Your task to perform on an android device: When is my next meeting? Image 0: 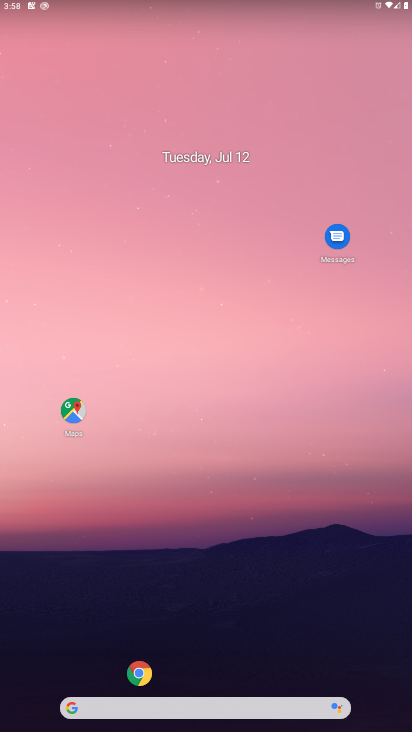
Step 0: drag from (90, 588) to (302, 48)
Your task to perform on an android device: When is my next meeting? Image 1: 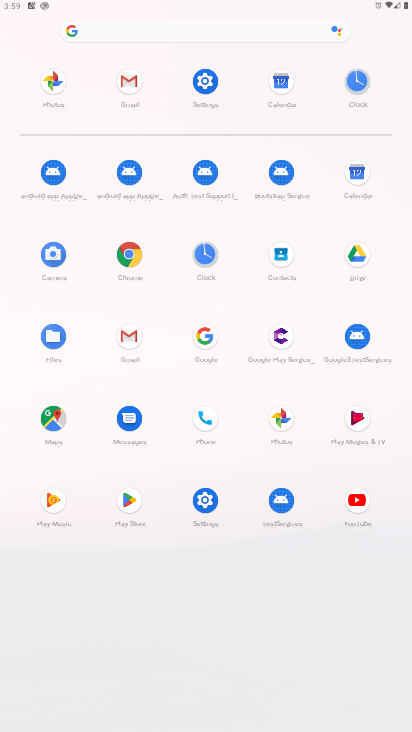
Step 1: click (355, 174)
Your task to perform on an android device: When is my next meeting? Image 2: 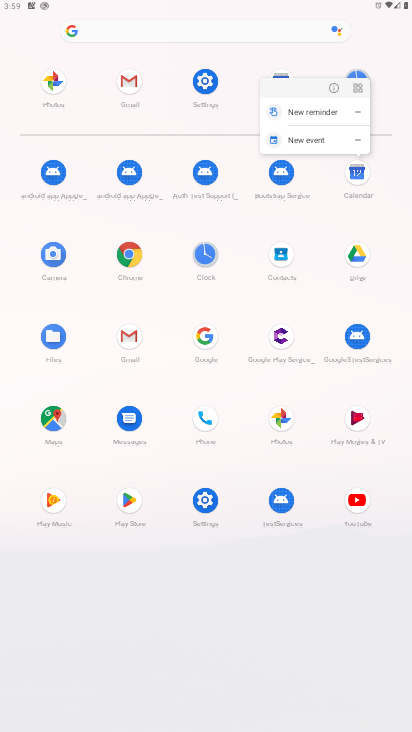
Step 2: click (355, 174)
Your task to perform on an android device: When is my next meeting? Image 3: 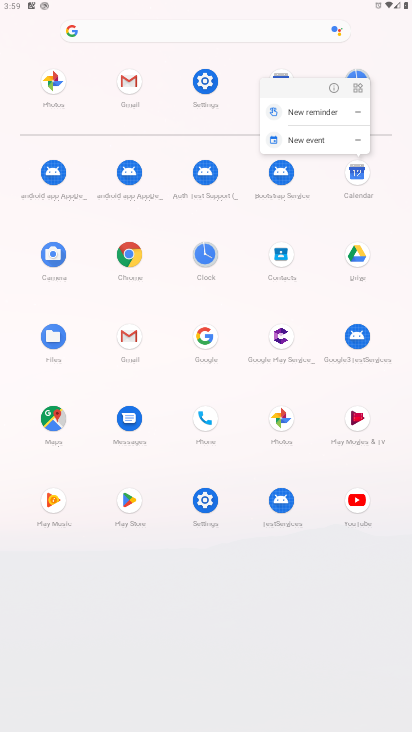
Step 3: task complete